Your task to perform on an android device: open app "YouTube Kids" (install if not already installed) and enter user name: "atmospheric@gmail.com" and password: "raze" Image 0: 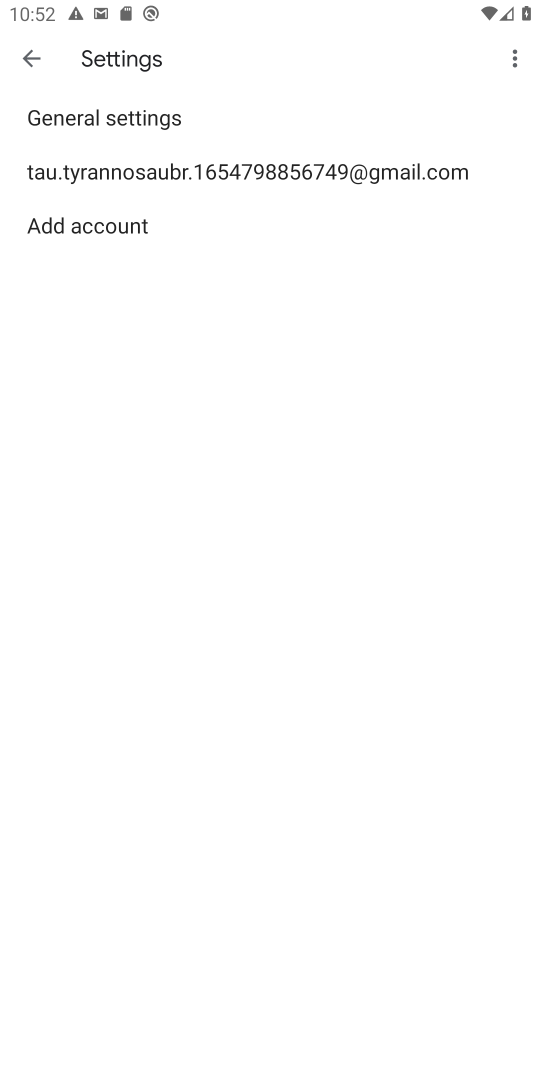
Step 0: press back button
Your task to perform on an android device: open app "YouTube Kids" (install if not already installed) and enter user name: "atmospheric@gmail.com" and password: "raze" Image 1: 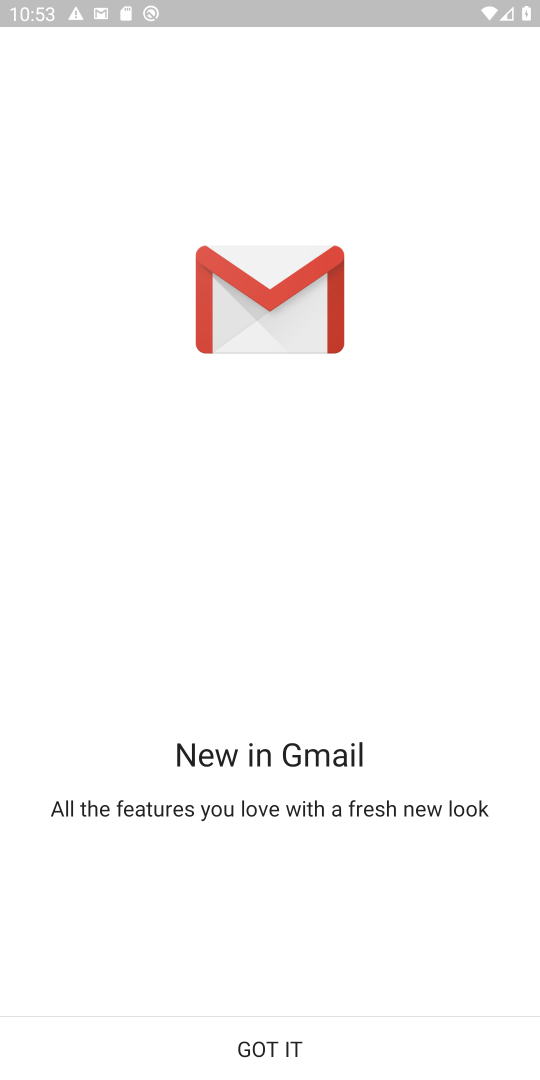
Step 1: press back button
Your task to perform on an android device: open app "YouTube Kids" (install if not already installed) and enter user name: "atmospheric@gmail.com" and password: "raze" Image 2: 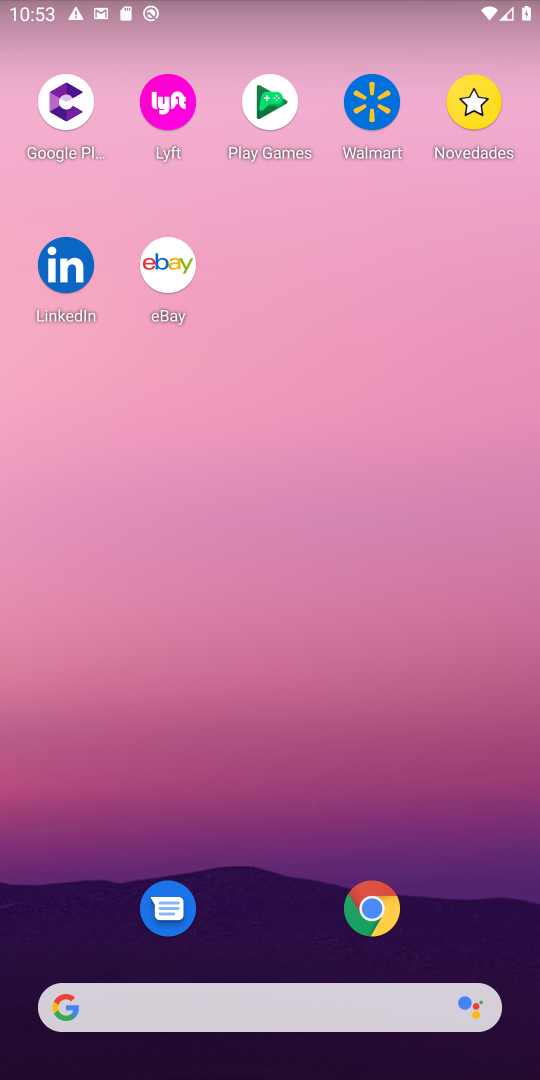
Step 2: drag from (258, 465) to (258, 194)
Your task to perform on an android device: open app "YouTube Kids" (install if not already installed) and enter user name: "atmospheric@gmail.com" and password: "raze" Image 3: 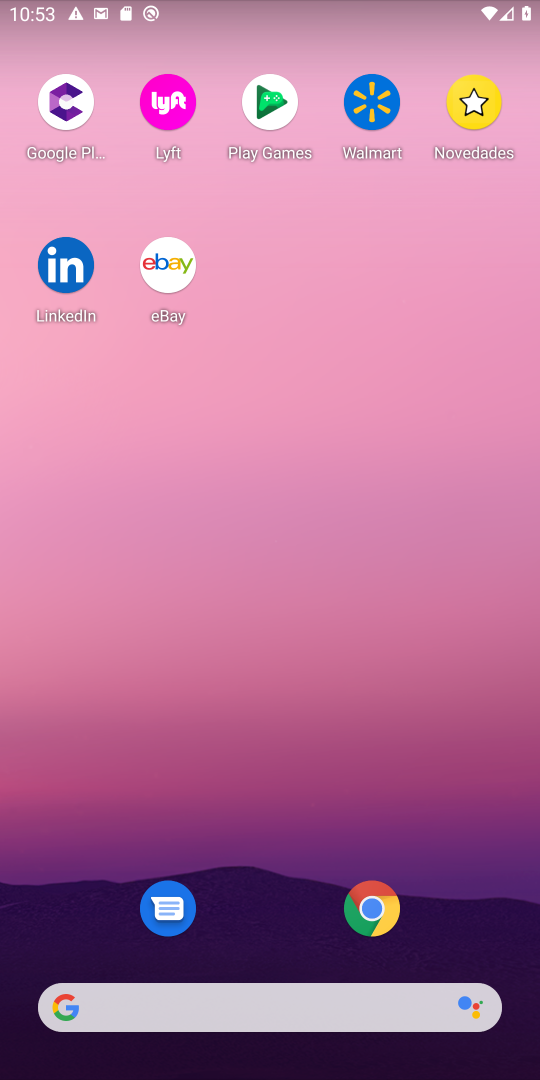
Step 3: drag from (281, 730) to (370, 10)
Your task to perform on an android device: open app "YouTube Kids" (install if not already installed) and enter user name: "atmospheric@gmail.com" and password: "raze" Image 4: 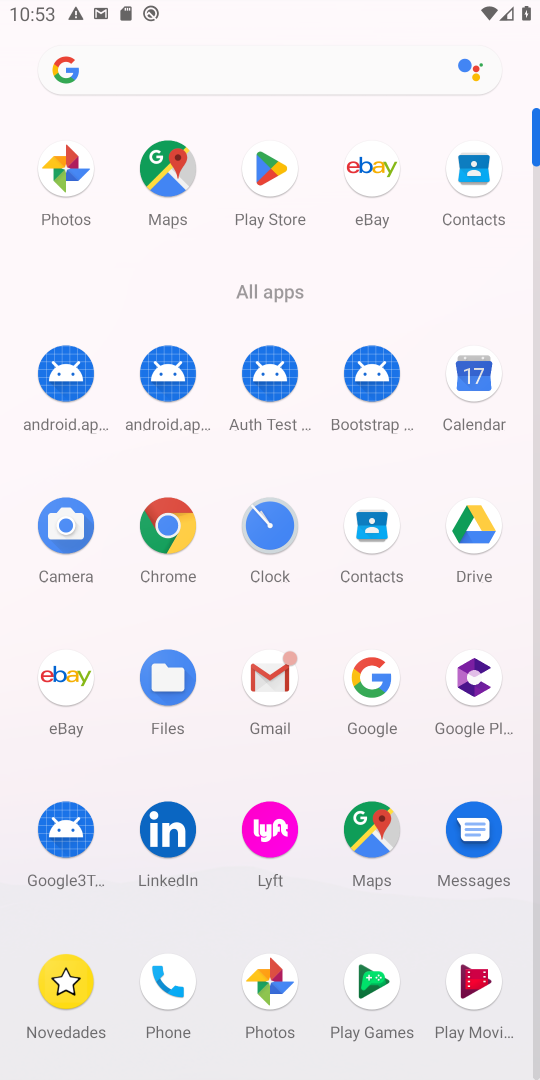
Step 4: click (274, 169)
Your task to perform on an android device: open app "YouTube Kids" (install if not already installed) and enter user name: "atmospheric@gmail.com" and password: "raze" Image 5: 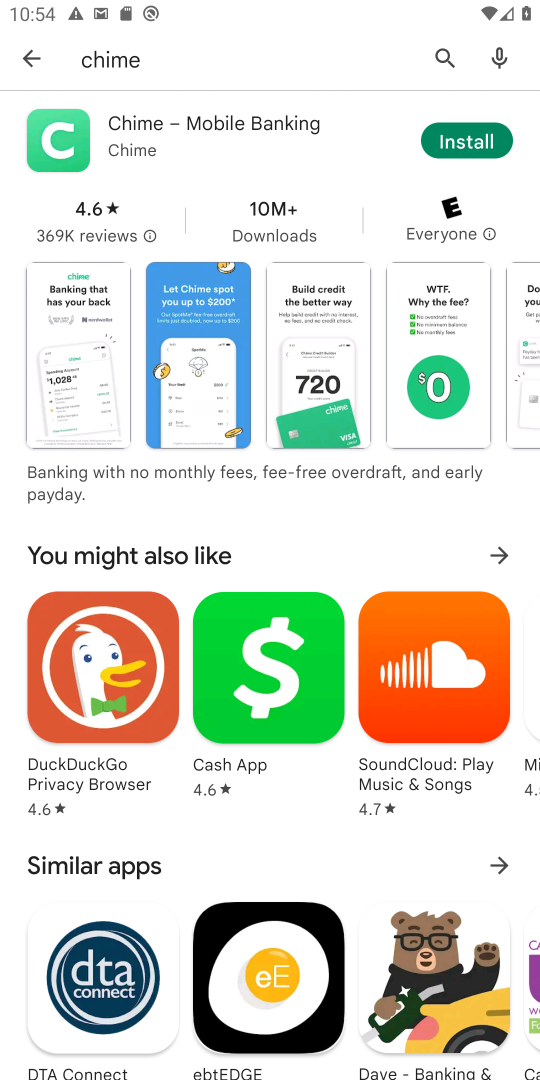
Step 5: click (433, 49)
Your task to perform on an android device: open app "YouTube Kids" (install if not already installed) and enter user name: "atmospheric@gmail.com" and password: "raze" Image 6: 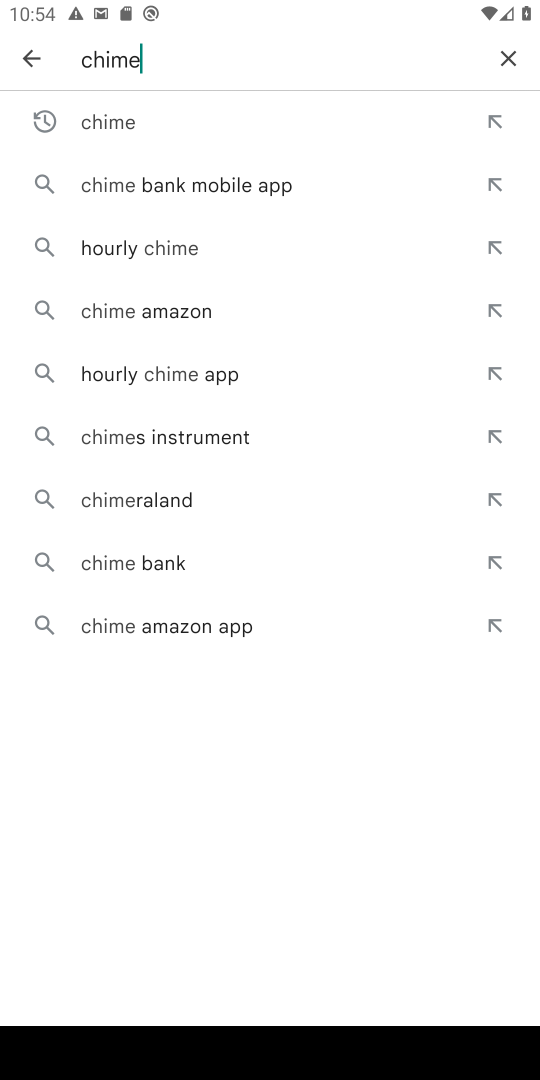
Step 6: click (514, 51)
Your task to perform on an android device: open app "YouTube Kids" (install if not already installed) and enter user name: "atmospheric@gmail.com" and password: "raze" Image 7: 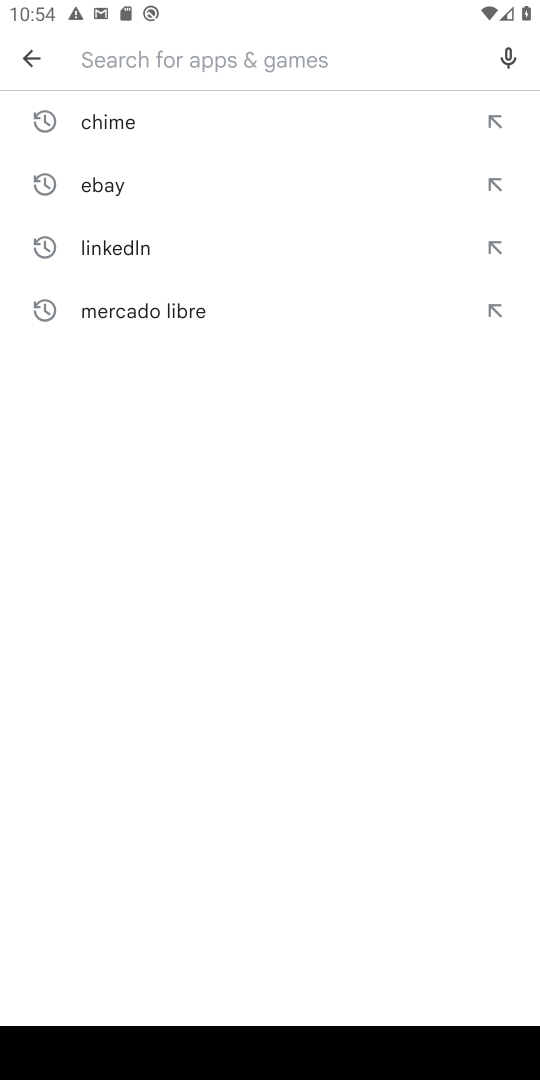
Step 7: click (153, 67)
Your task to perform on an android device: open app "YouTube Kids" (install if not already installed) and enter user name: "atmospheric@gmail.com" and password: "raze" Image 8: 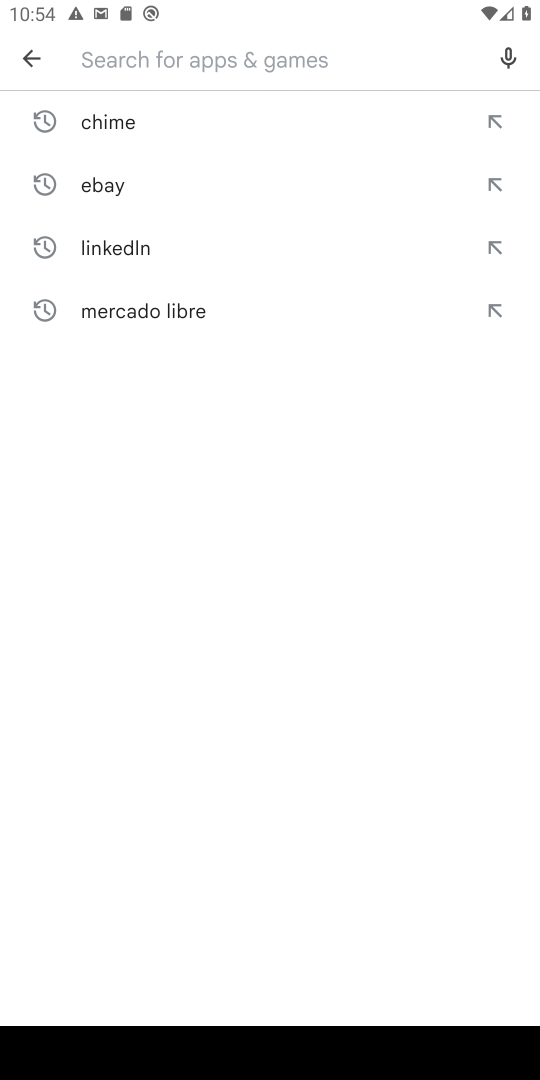
Step 8: type "youtube kids"
Your task to perform on an android device: open app "YouTube Kids" (install if not already installed) and enter user name: "atmospheric@gmail.com" and password: "raze" Image 9: 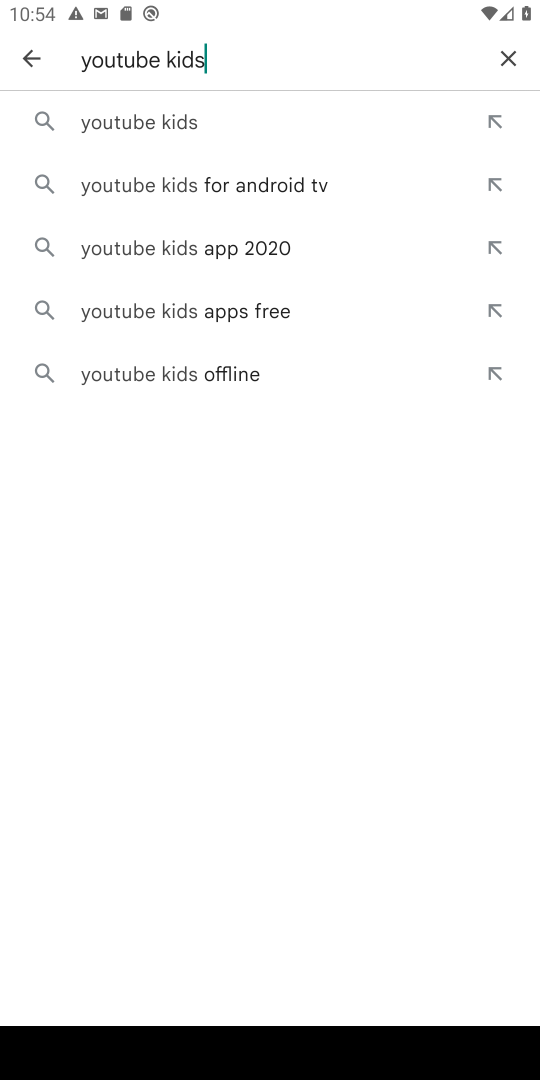
Step 9: click (196, 113)
Your task to perform on an android device: open app "YouTube Kids" (install if not already installed) and enter user name: "atmospheric@gmail.com" and password: "raze" Image 10: 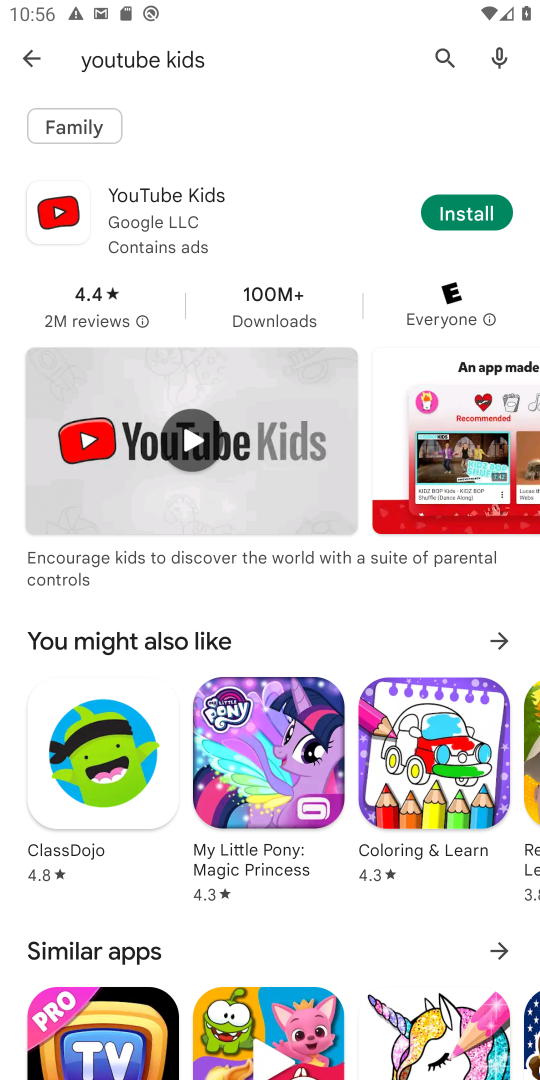
Step 10: click (480, 207)
Your task to perform on an android device: open app "YouTube Kids" (install if not already installed) and enter user name: "atmospheric@gmail.com" and password: "raze" Image 11: 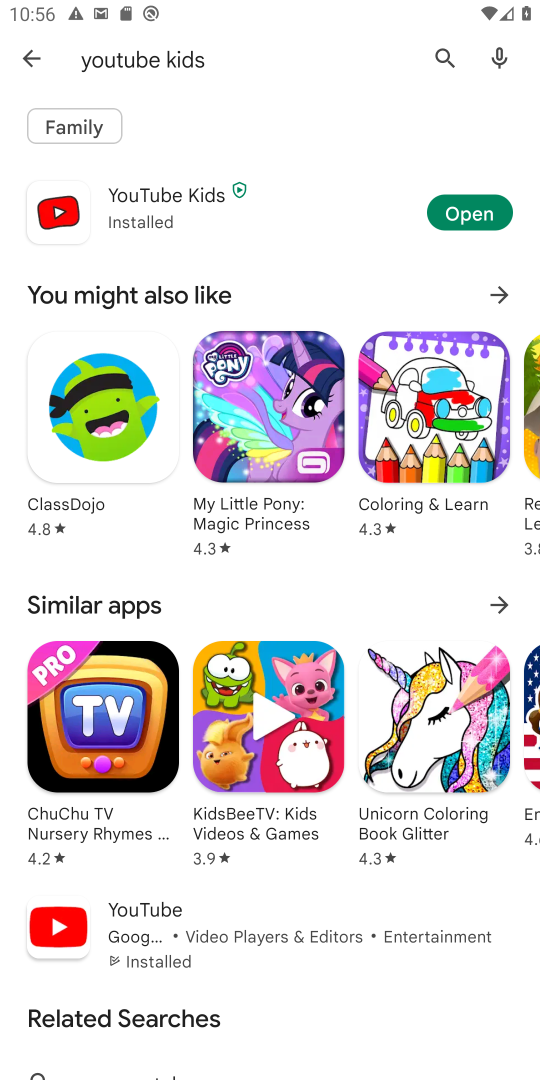
Step 11: click (461, 213)
Your task to perform on an android device: open app "YouTube Kids" (install if not already installed) and enter user name: "atmospheric@gmail.com" and password: "raze" Image 12: 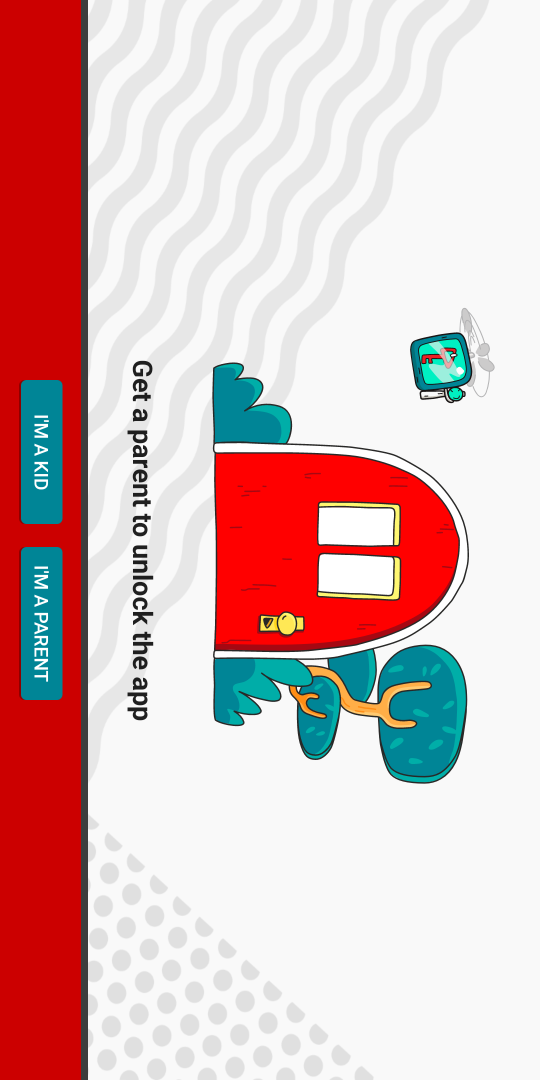
Step 12: click (22, 460)
Your task to perform on an android device: open app "YouTube Kids" (install if not already installed) and enter user name: "atmospheric@gmail.com" and password: "raze" Image 13: 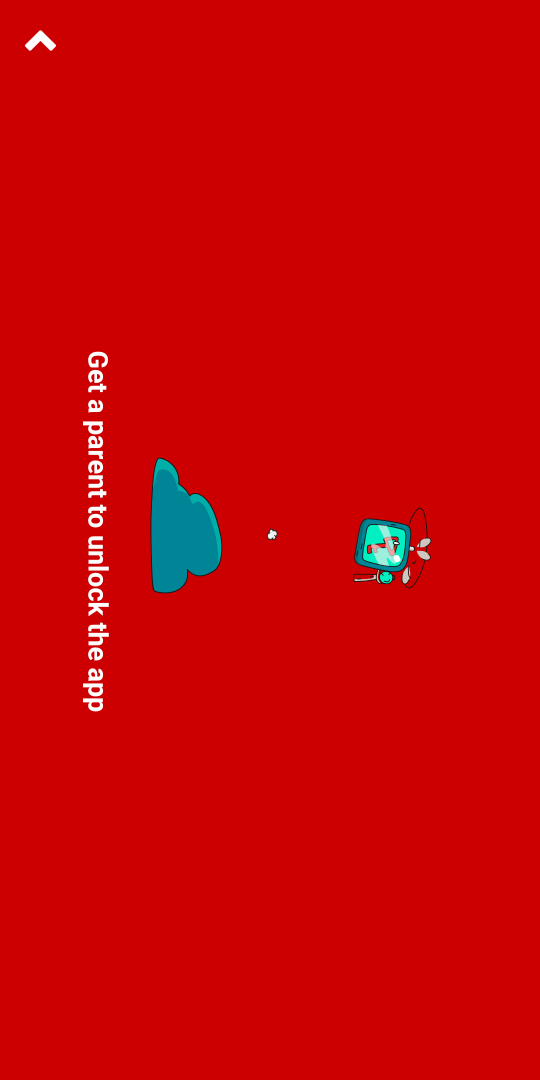
Step 13: click (87, 507)
Your task to perform on an android device: open app "YouTube Kids" (install if not already installed) and enter user name: "atmospheric@gmail.com" and password: "raze" Image 14: 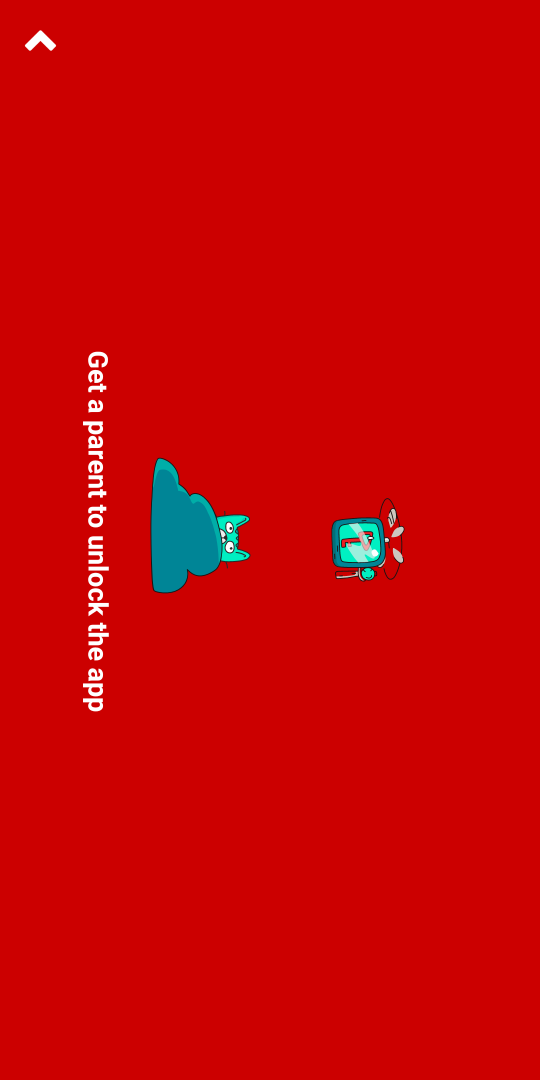
Step 14: click (395, 538)
Your task to perform on an android device: open app "YouTube Kids" (install if not already installed) and enter user name: "atmospheric@gmail.com" and password: "raze" Image 15: 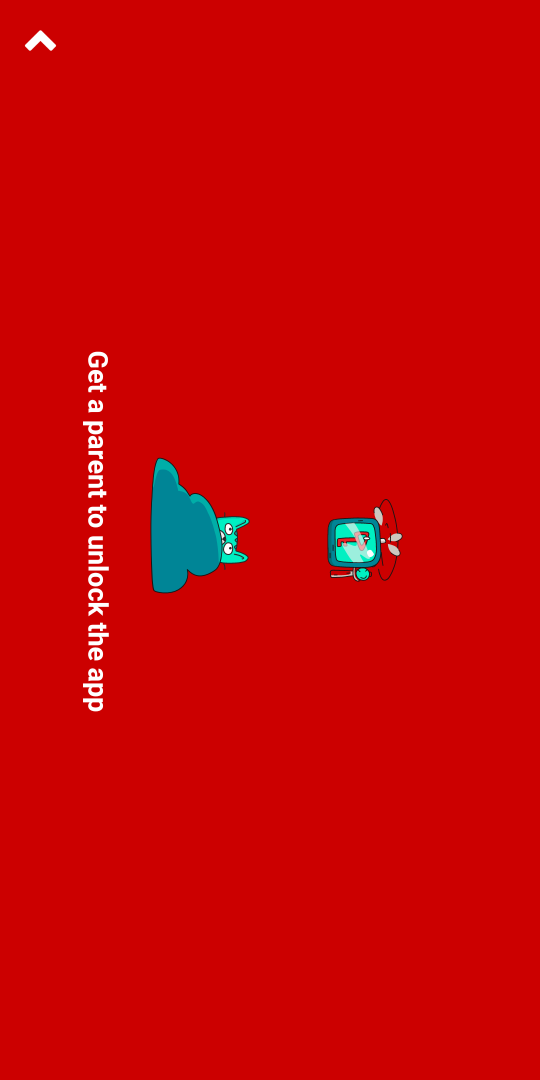
Step 15: click (373, 544)
Your task to perform on an android device: open app "YouTube Kids" (install if not already installed) and enter user name: "atmospheric@gmail.com" and password: "raze" Image 16: 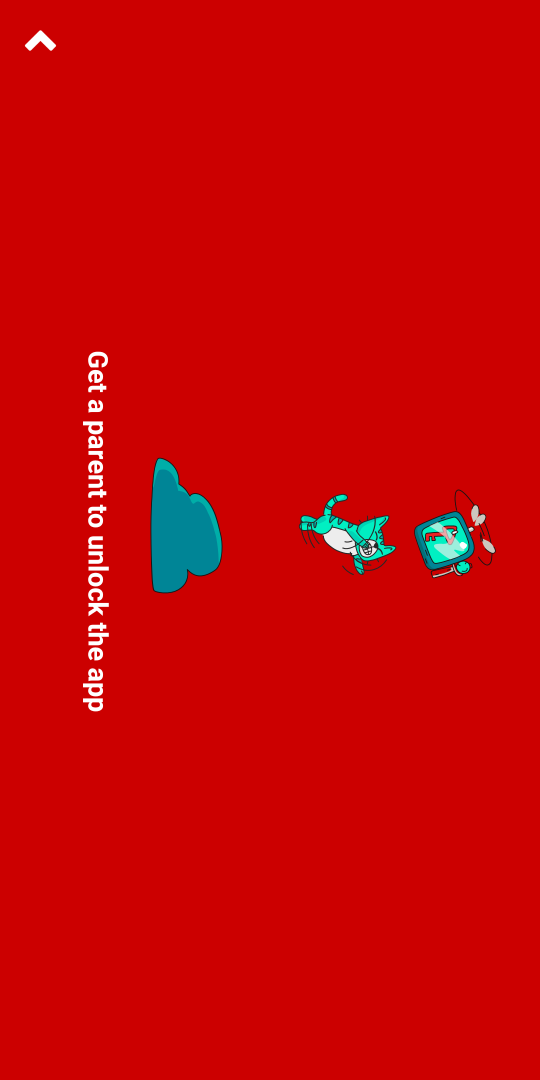
Step 16: click (40, 50)
Your task to perform on an android device: open app "YouTube Kids" (install if not already installed) and enter user name: "atmospheric@gmail.com" and password: "raze" Image 17: 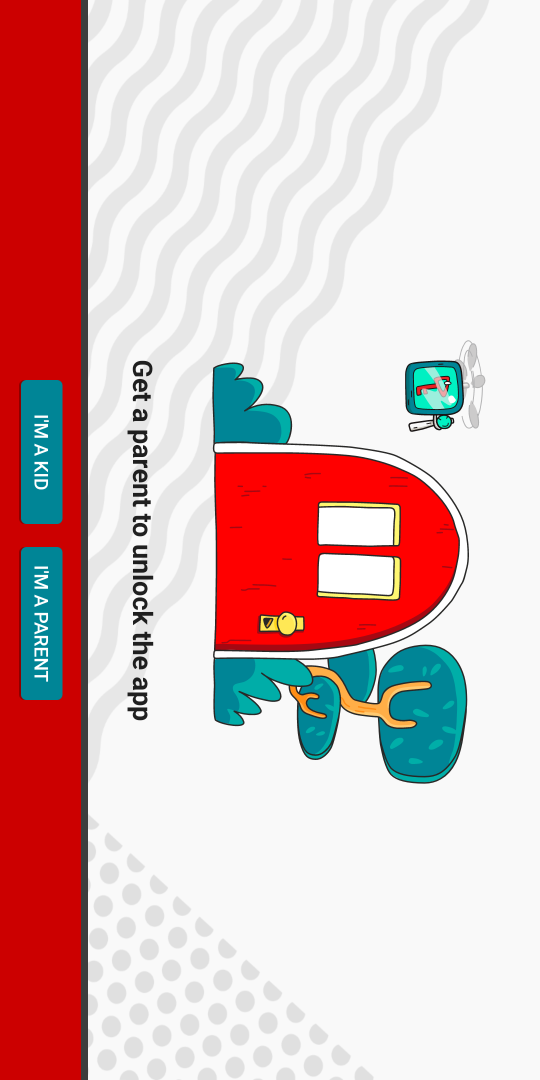
Step 17: click (34, 625)
Your task to perform on an android device: open app "YouTube Kids" (install if not already installed) and enter user name: "atmospheric@gmail.com" and password: "raze" Image 18: 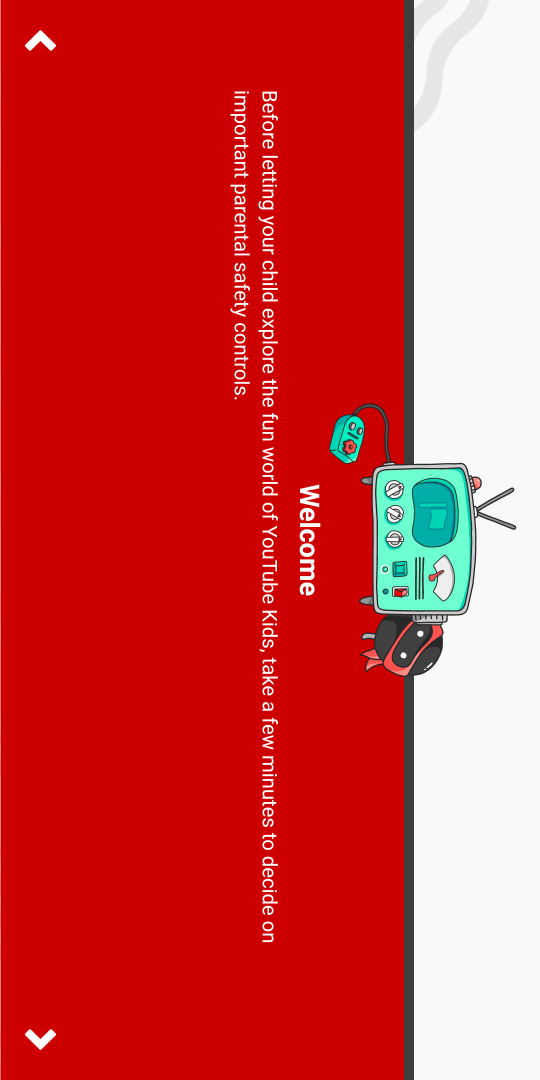
Step 18: click (43, 1044)
Your task to perform on an android device: open app "YouTube Kids" (install if not already installed) and enter user name: "atmospheric@gmail.com" and password: "raze" Image 19: 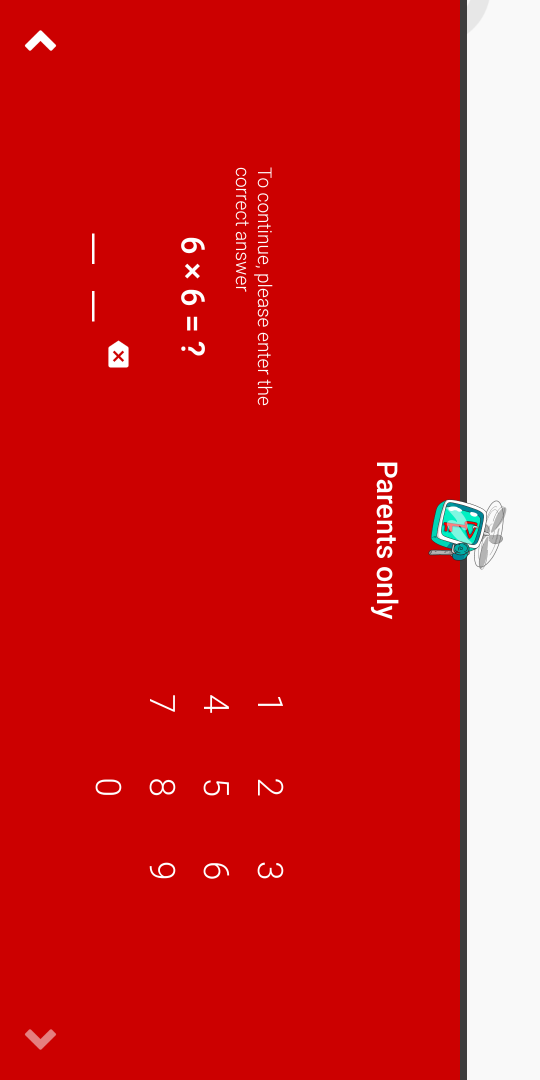
Step 19: click (267, 874)
Your task to perform on an android device: open app "YouTube Kids" (install if not already installed) and enter user name: "atmospheric@gmail.com" and password: "raze" Image 20: 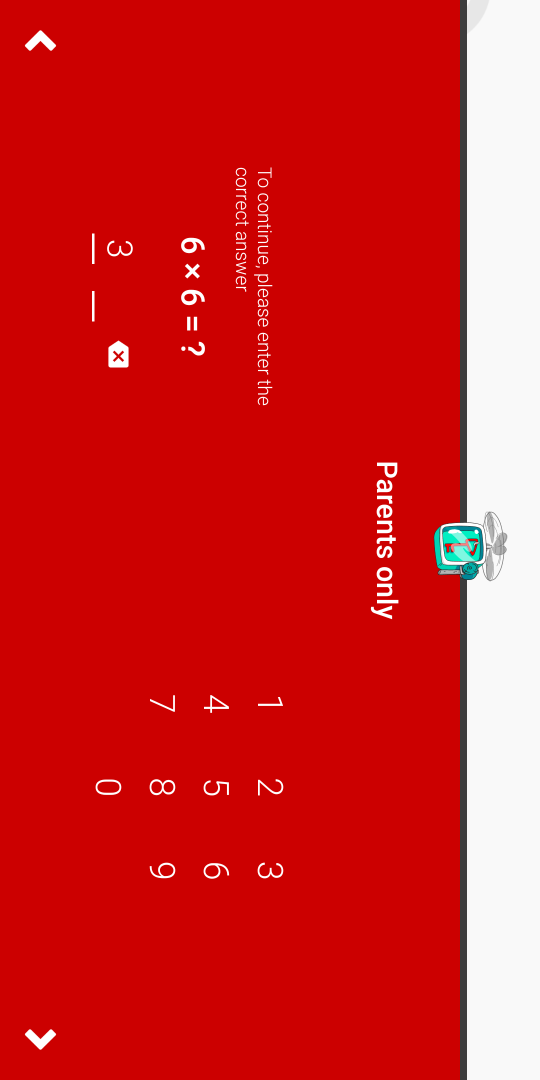
Step 20: click (209, 873)
Your task to perform on an android device: open app "YouTube Kids" (install if not already installed) and enter user name: "atmospheric@gmail.com" and password: "raze" Image 21: 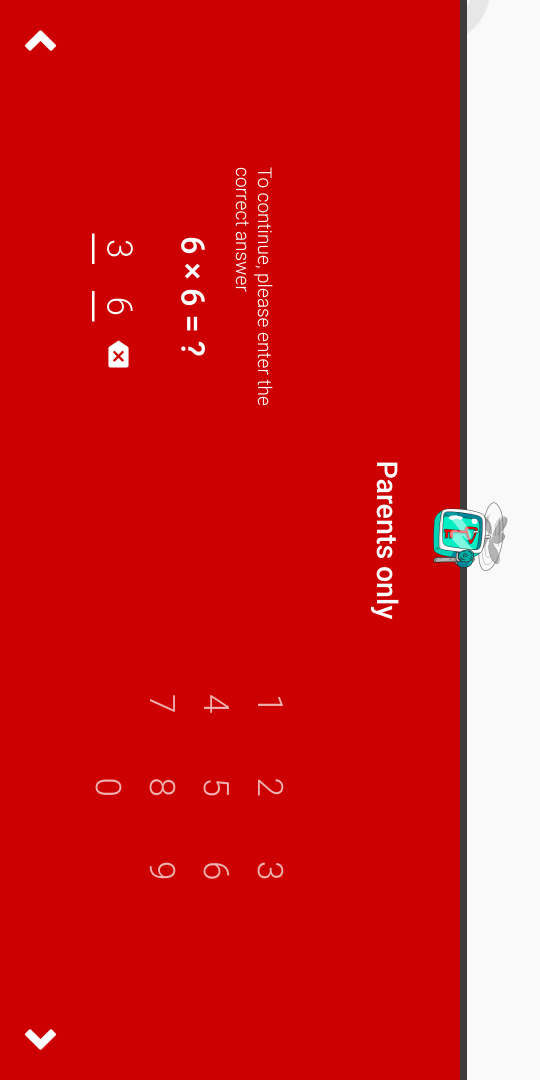
Step 21: click (44, 1021)
Your task to perform on an android device: open app "YouTube Kids" (install if not already installed) and enter user name: "atmospheric@gmail.com" and password: "raze" Image 22: 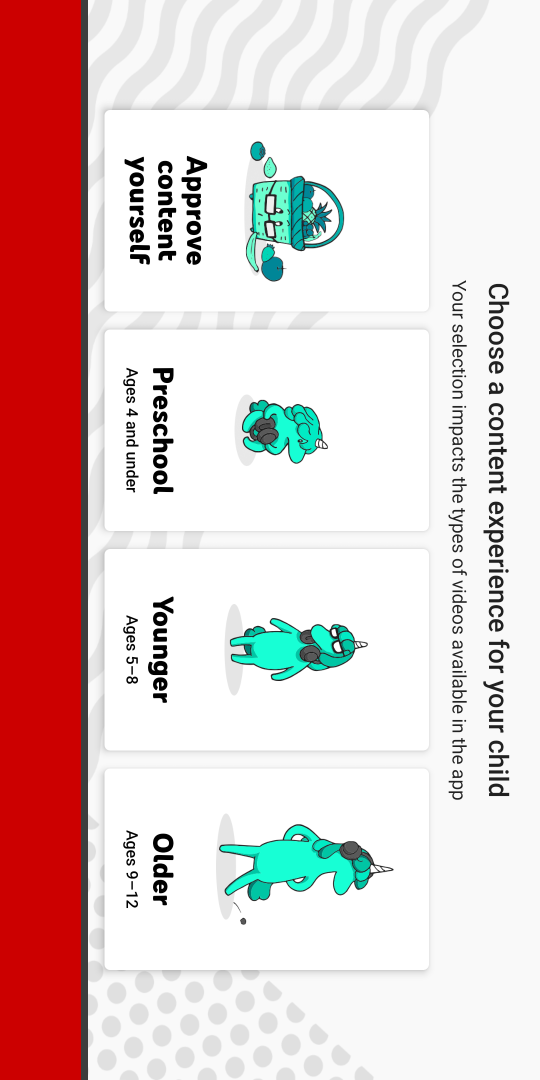
Step 22: click (200, 393)
Your task to perform on an android device: open app "YouTube Kids" (install if not already installed) and enter user name: "atmospheric@gmail.com" and password: "raze" Image 23: 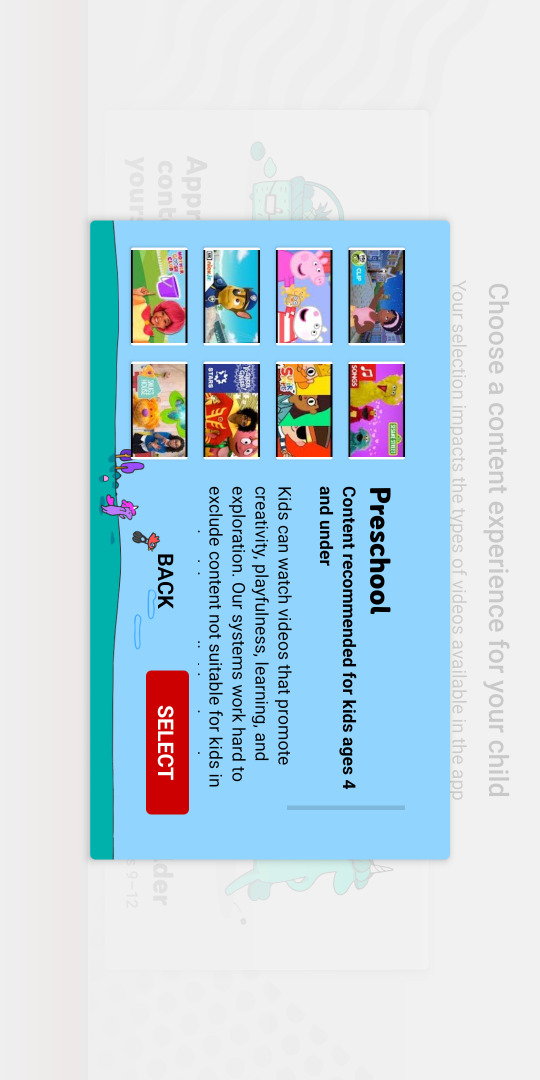
Step 23: click (179, 727)
Your task to perform on an android device: open app "YouTube Kids" (install if not already installed) and enter user name: "atmospheric@gmail.com" and password: "raze" Image 24: 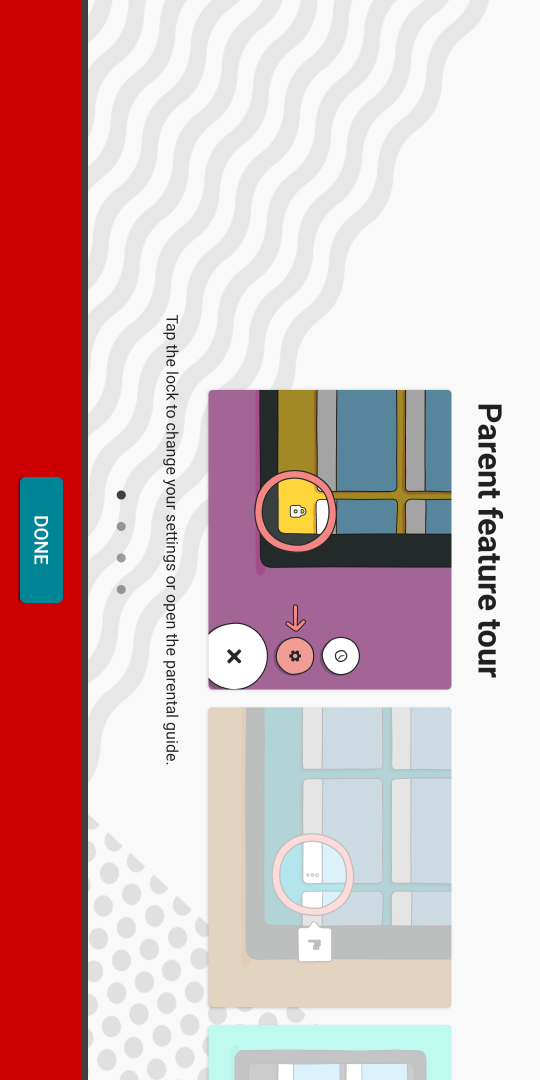
Step 24: click (58, 539)
Your task to perform on an android device: open app "YouTube Kids" (install if not already installed) and enter user name: "atmospheric@gmail.com" and password: "raze" Image 25: 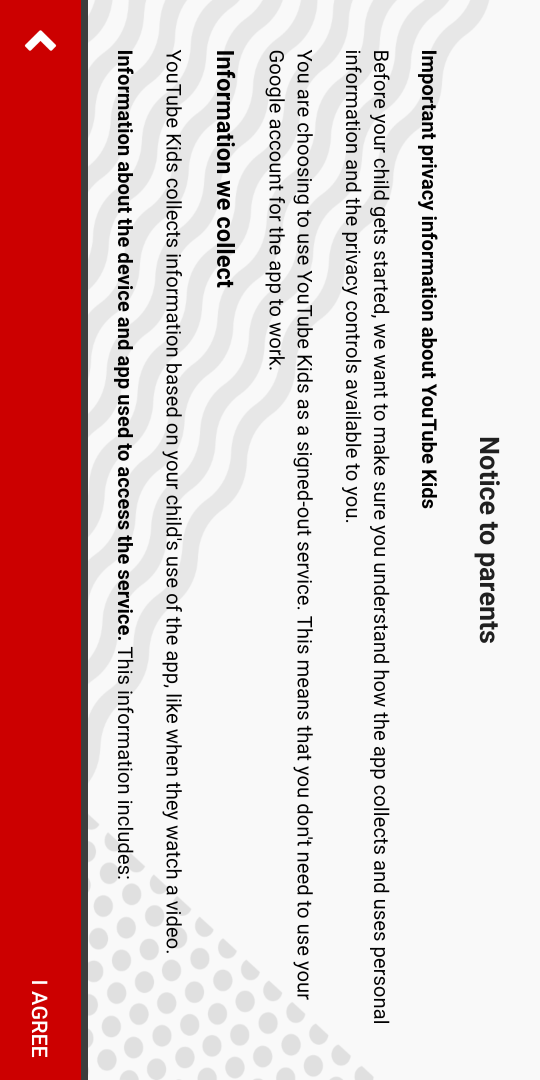
Step 25: click (37, 1025)
Your task to perform on an android device: open app "YouTube Kids" (install if not already installed) and enter user name: "atmospheric@gmail.com" and password: "raze" Image 26: 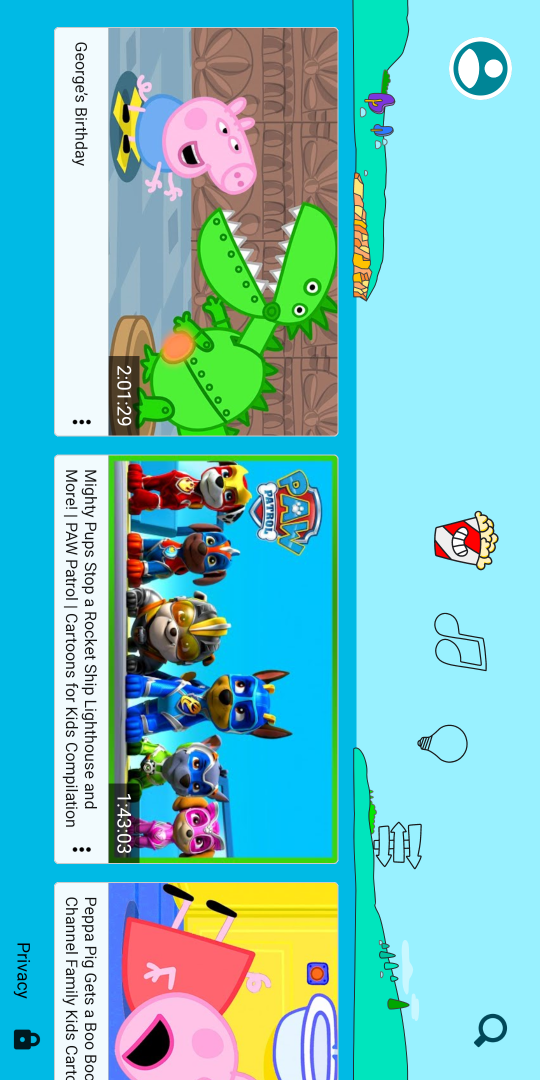
Step 26: click (466, 58)
Your task to perform on an android device: open app "YouTube Kids" (install if not already installed) and enter user name: "atmospheric@gmail.com" and password: "raze" Image 27: 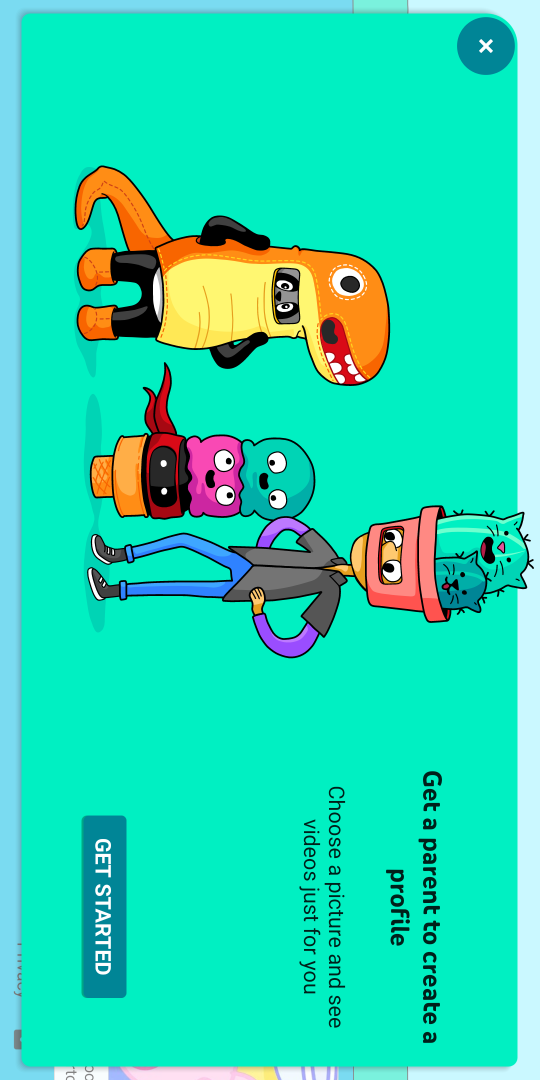
Step 27: click (89, 881)
Your task to perform on an android device: open app "YouTube Kids" (install if not already installed) and enter user name: "atmospheric@gmail.com" and password: "raze" Image 28: 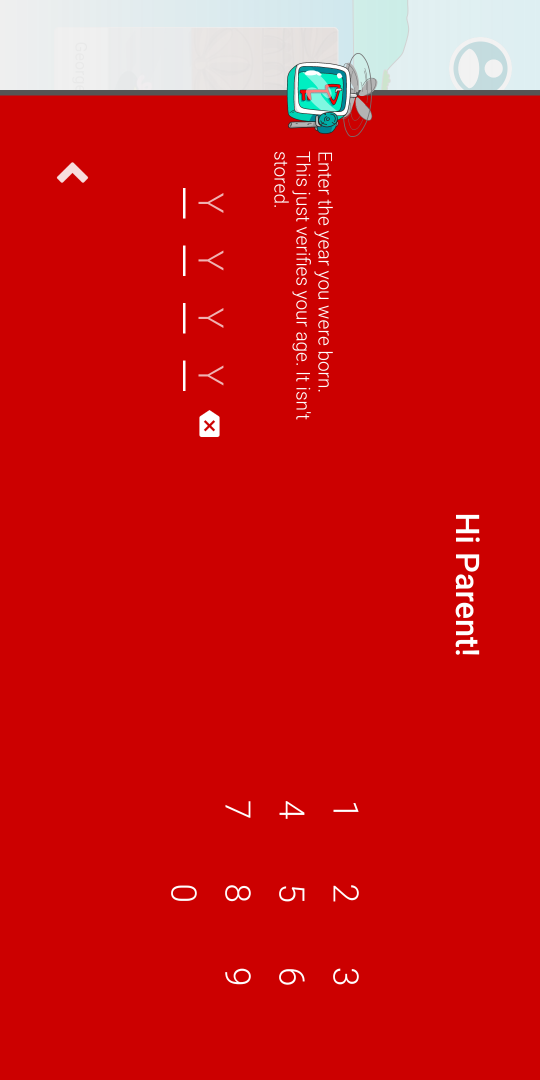
Step 28: task complete